Your task to perform on an android device: Search for the top rated book on goodreads. Image 0: 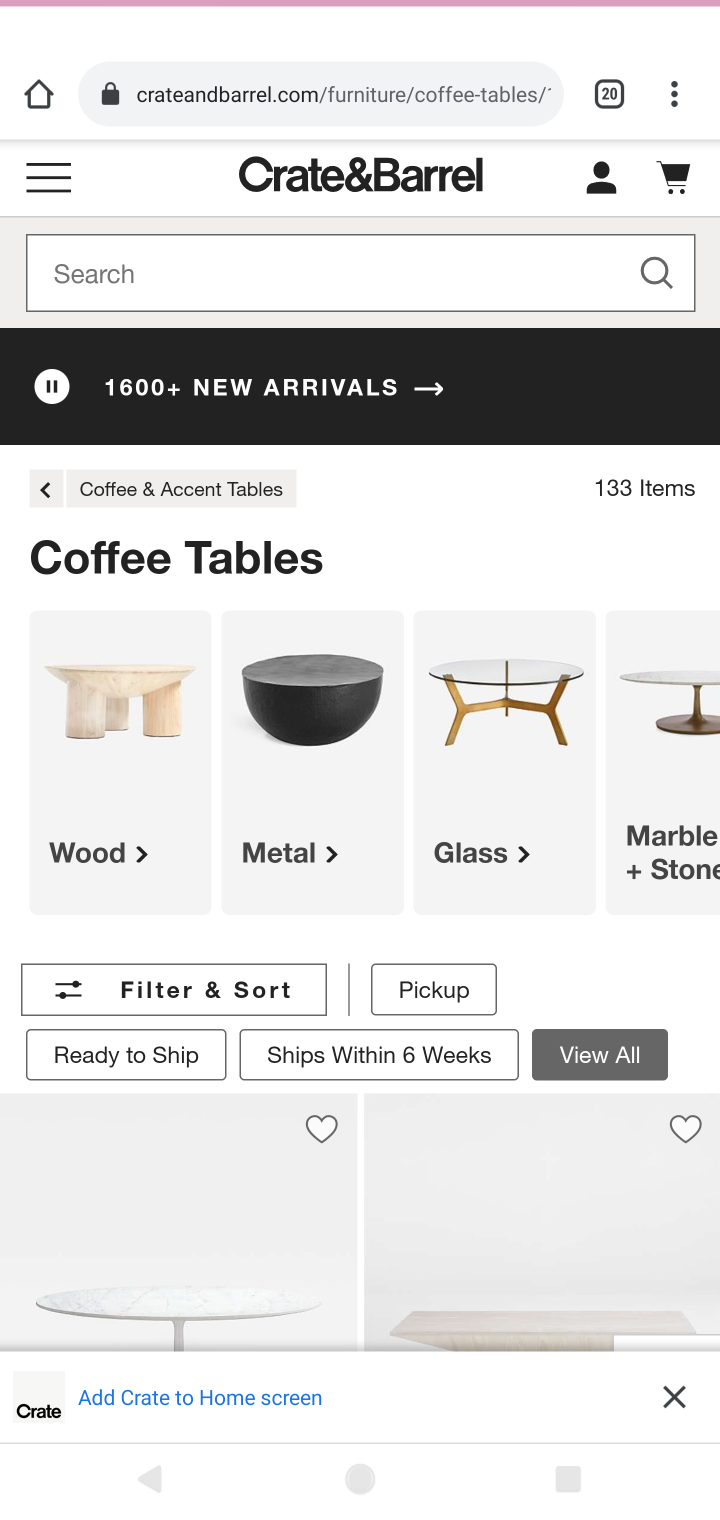
Step 0: press home button
Your task to perform on an android device: Search for the top rated book on goodreads. Image 1: 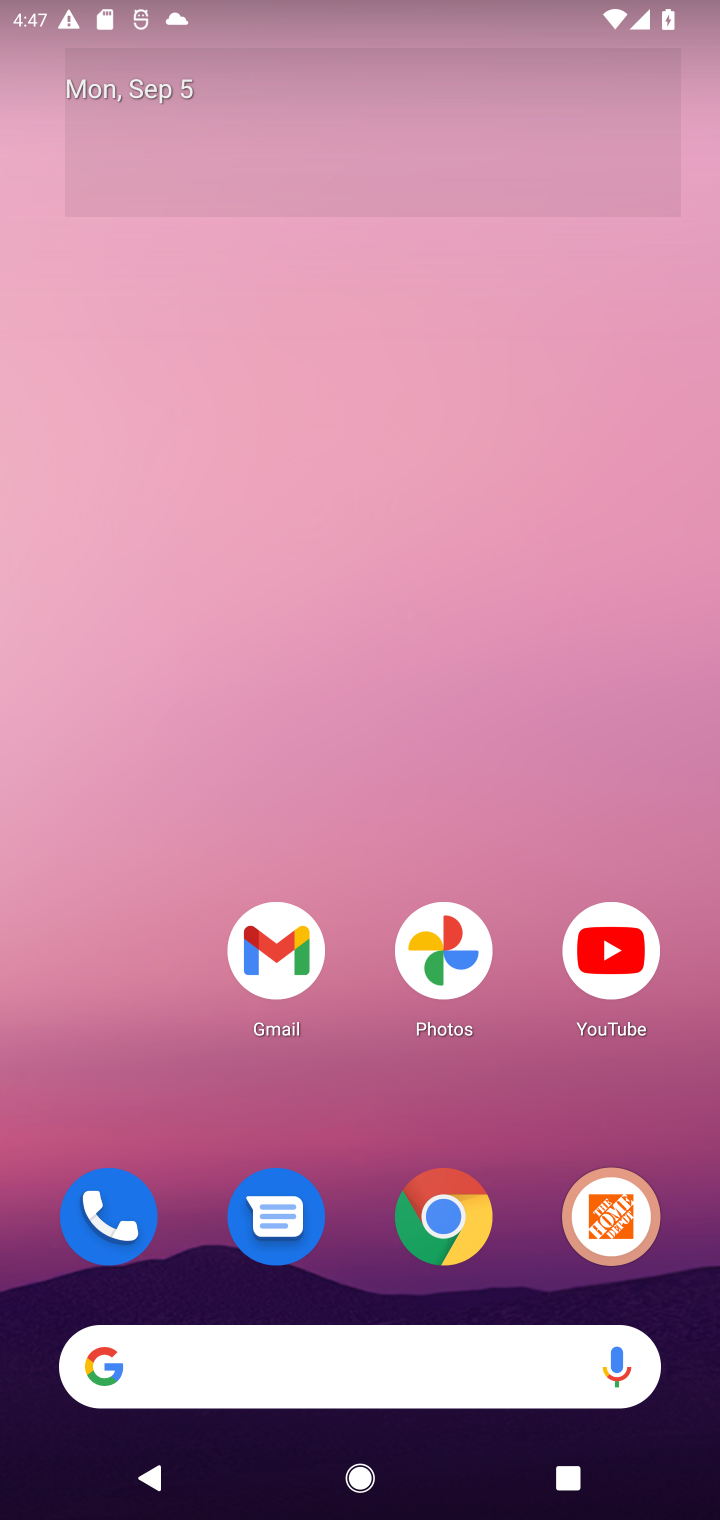
Step 1: click (109, 1362)
Your task to perform on an android device: Search for the top rated book on goodreads. Image 2: 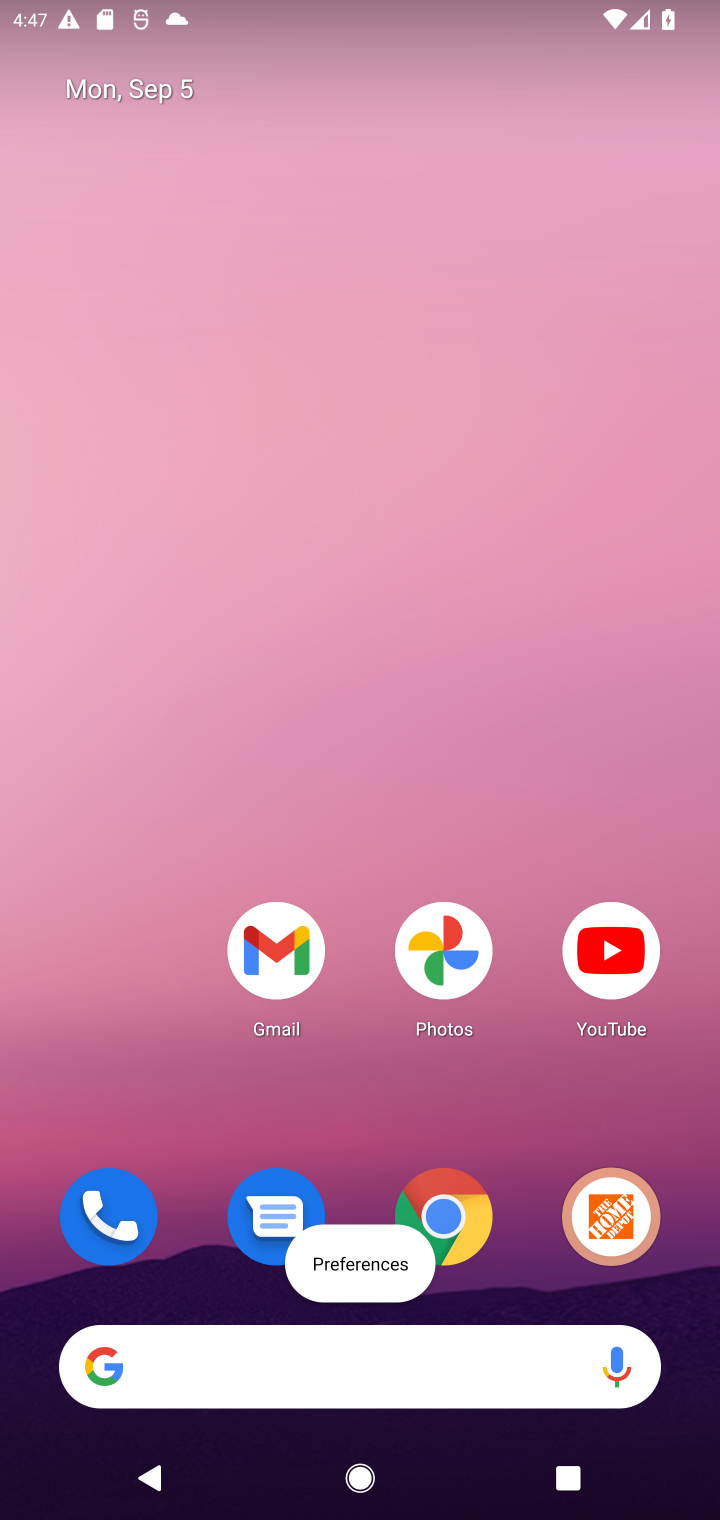
Step 2: click (103, 1364)
Your task to perform on an android device: Search for the top rated book on goodreads. Image 3: 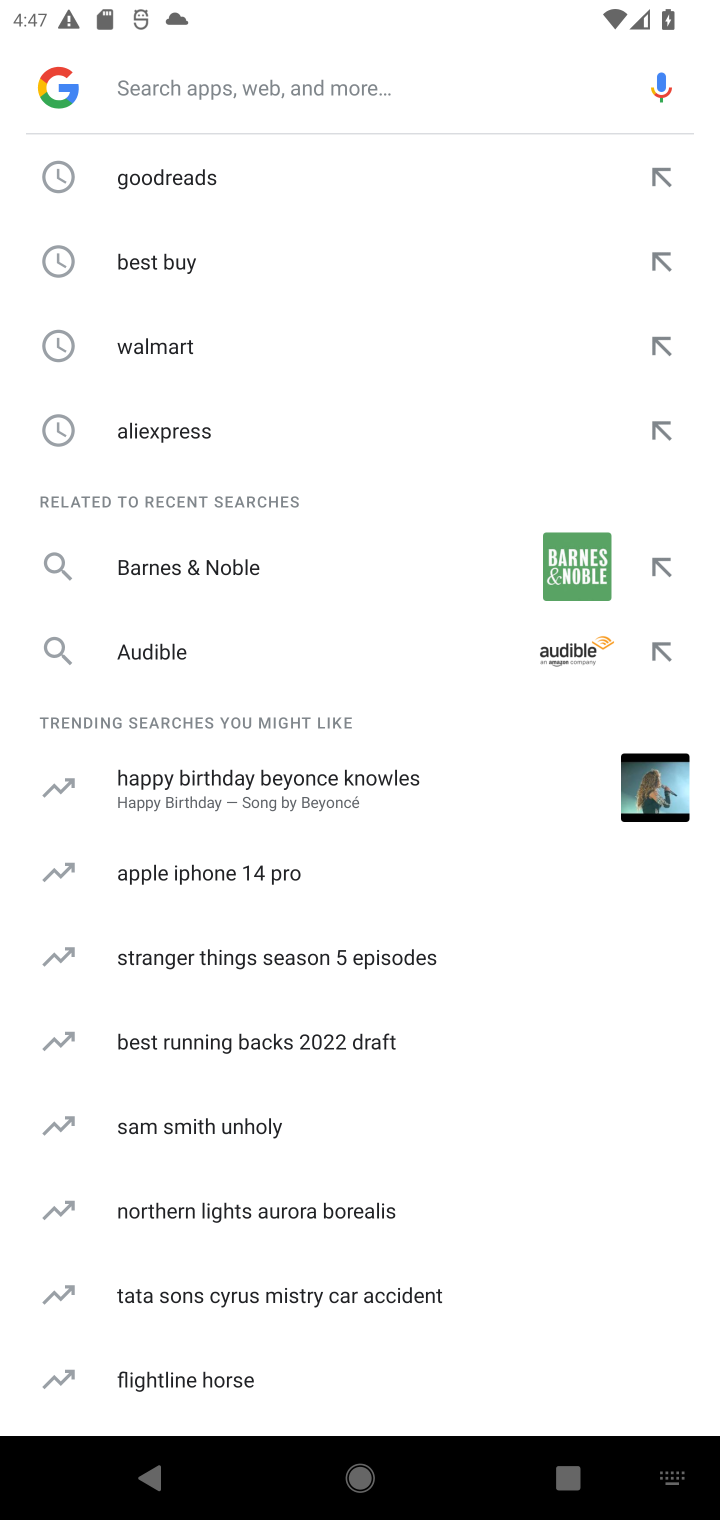
Step 3: click (213, 95)
Your task to perform on an android device: Search for the top rated book on goodreads. Image 4: 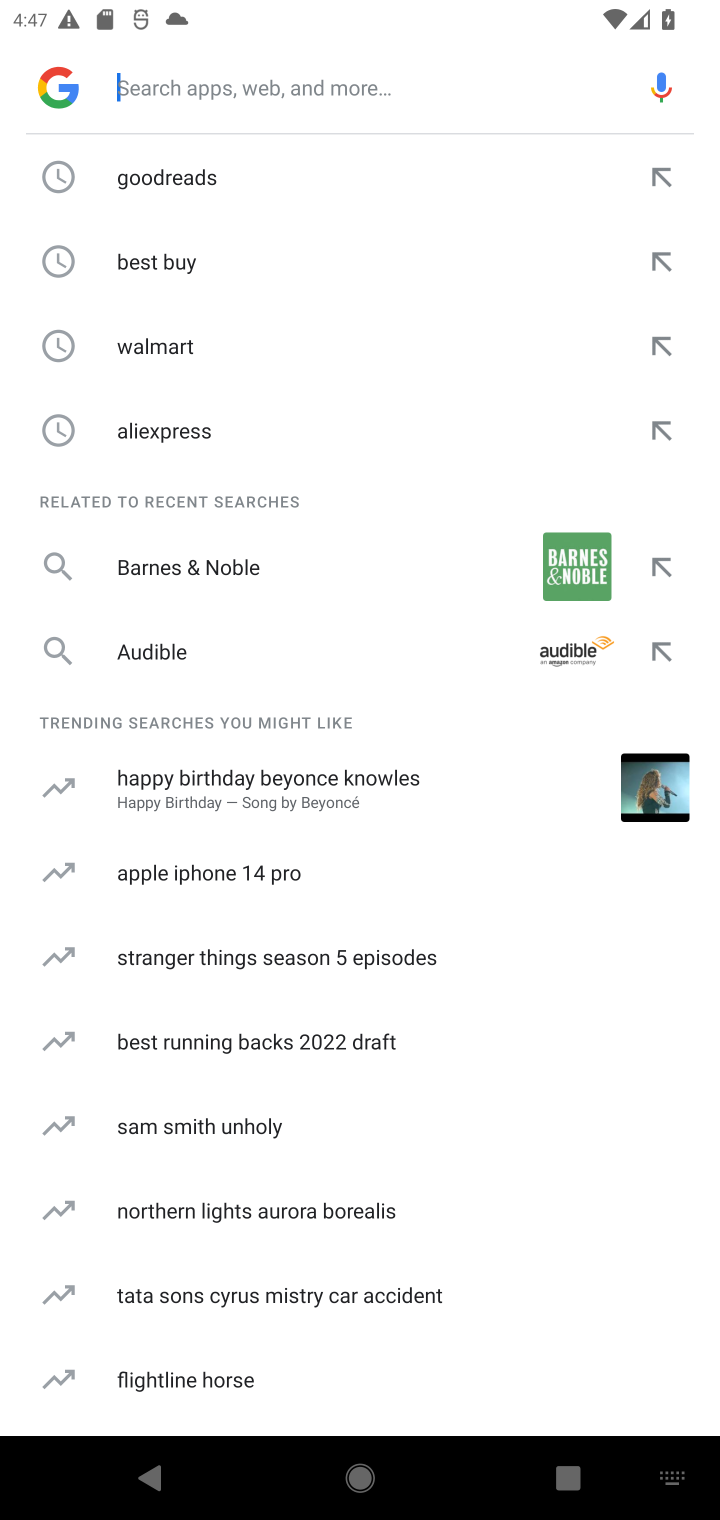
Step 4: type "goodreads"
Your task to perform on an android device: Search for the top rated book on goodreads. Image 5: 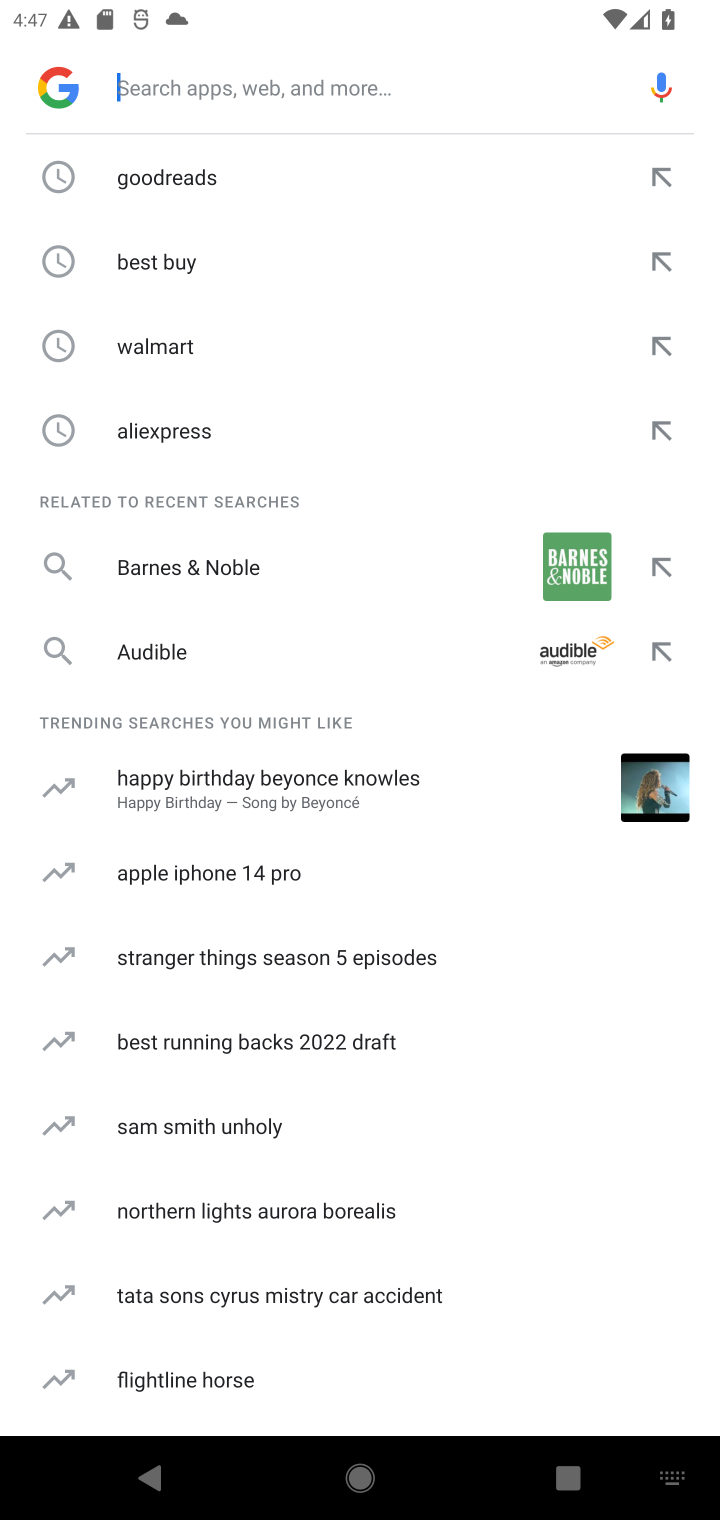
Step 5: click (168, 98)
Your task to perform on an android device: Search for the top rated book on goodreads. Image 6: 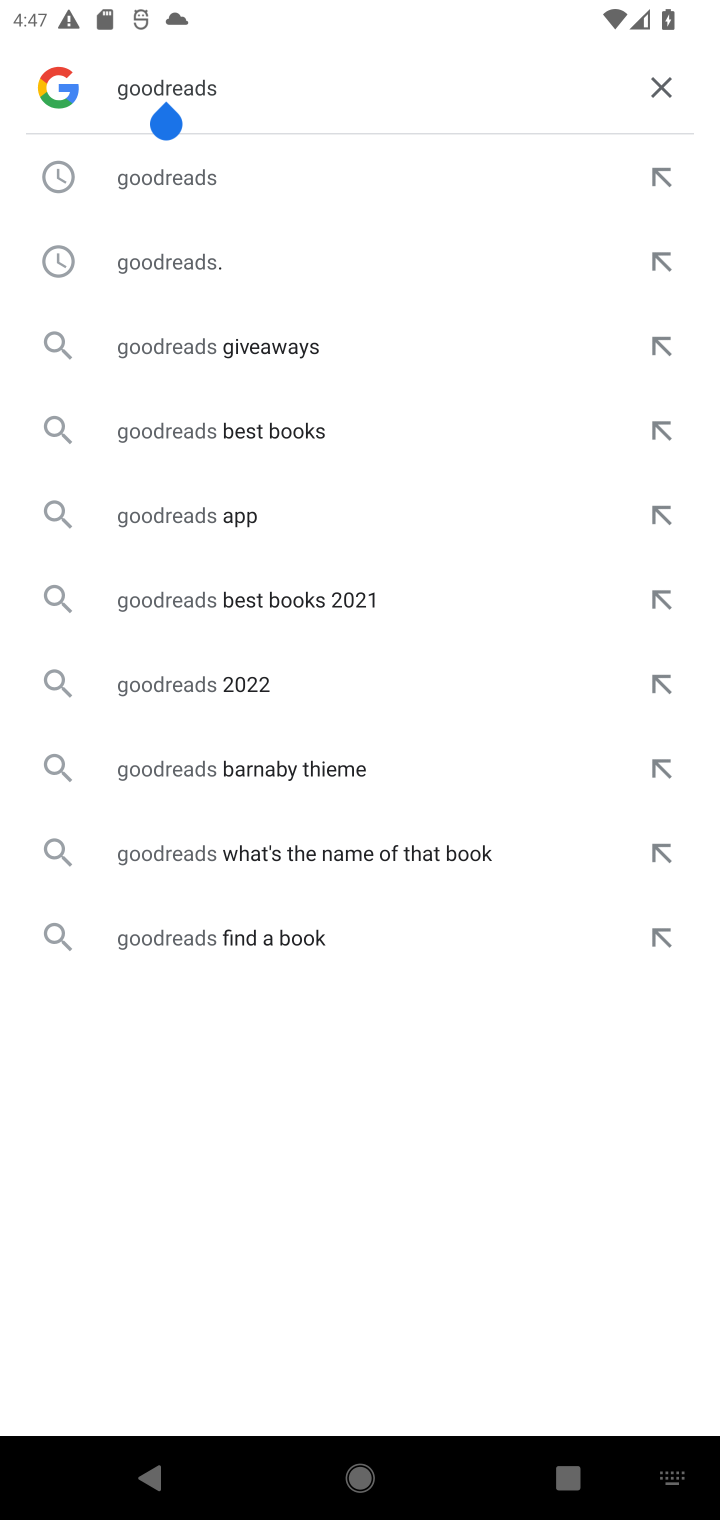
Step 6: press enter
Your task to perform on an android device: Search for the top rated book on goodreads. Image 7: 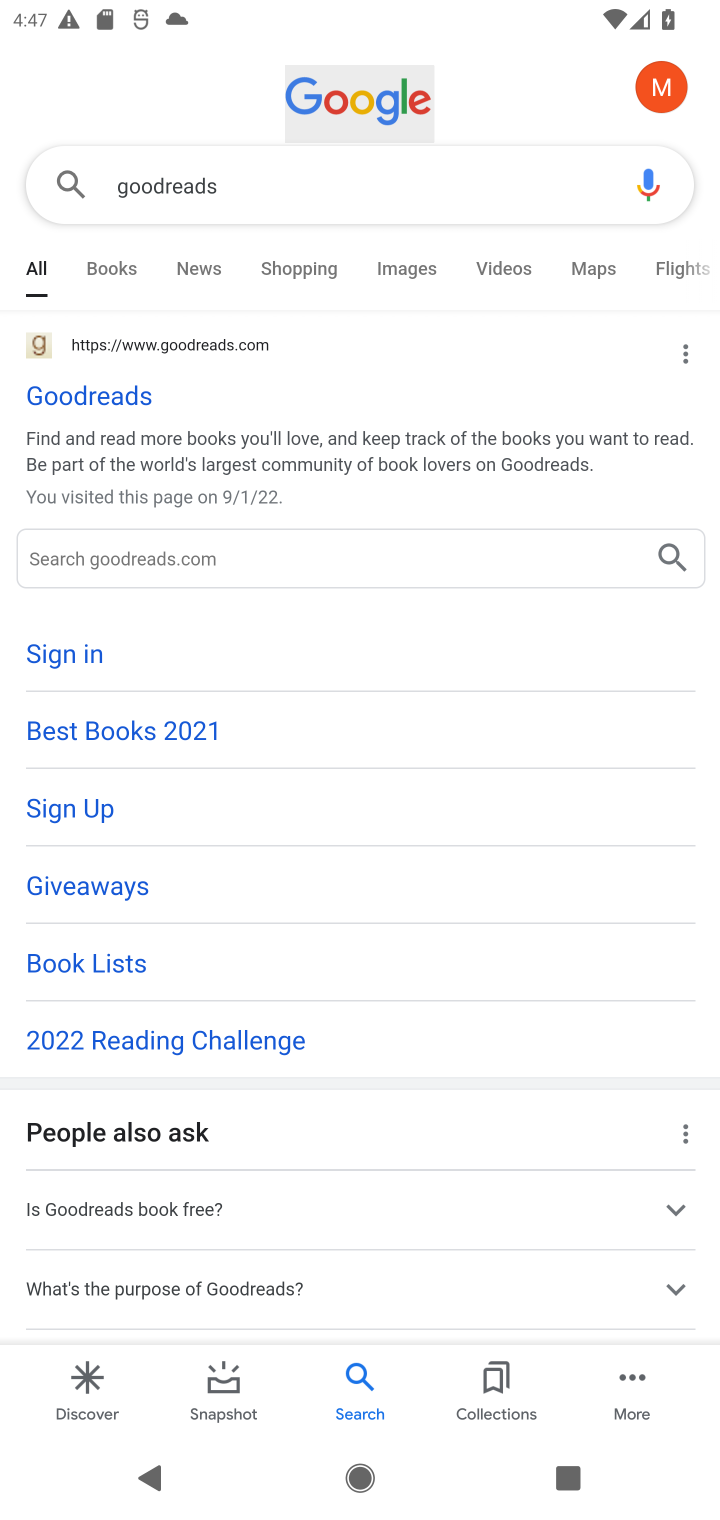
Step 7: click (92, 399)
Your task to perform on an android device: Search for the top rated book on goodreads. Image 8: 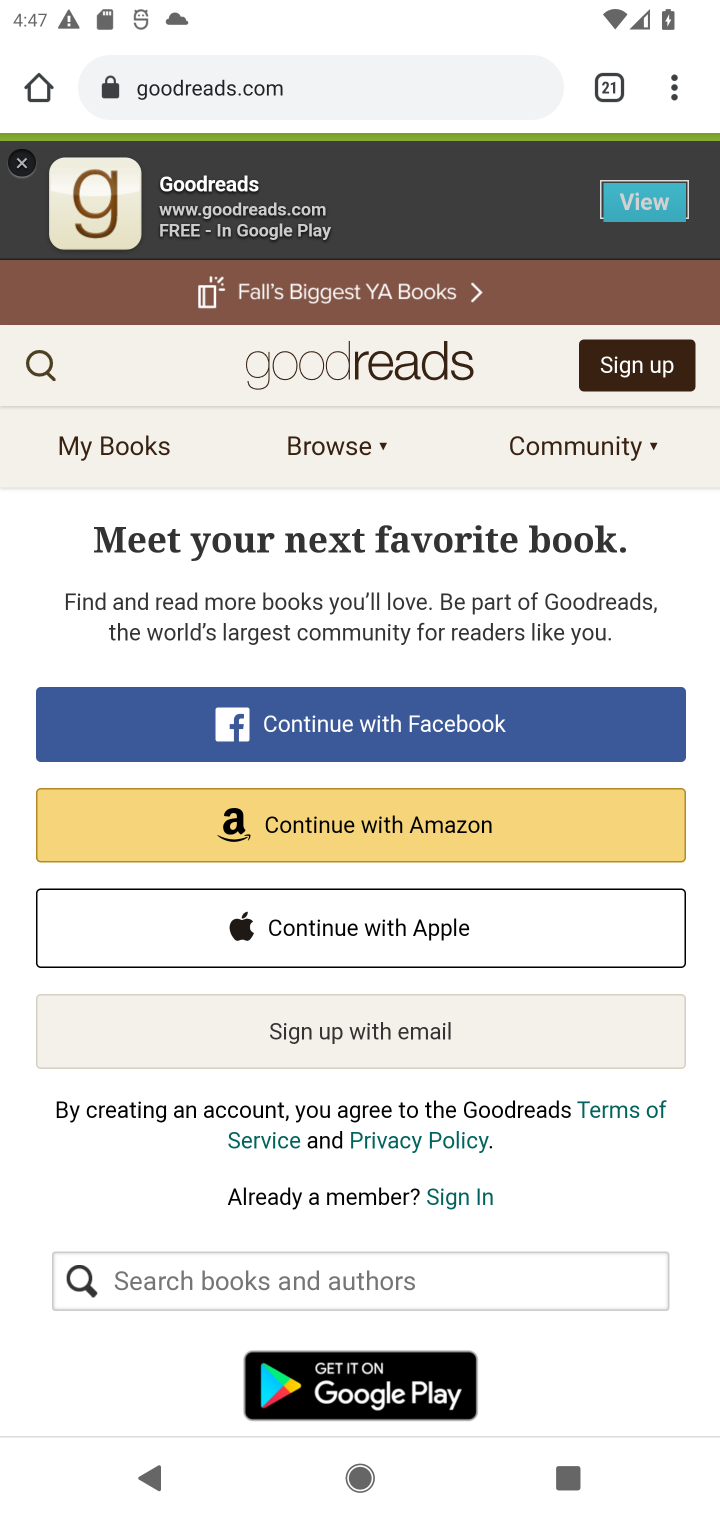
Step 8: click (41, 365)
Your task to perform on an android device: Search for the top rated book on goodreads. Image 9: 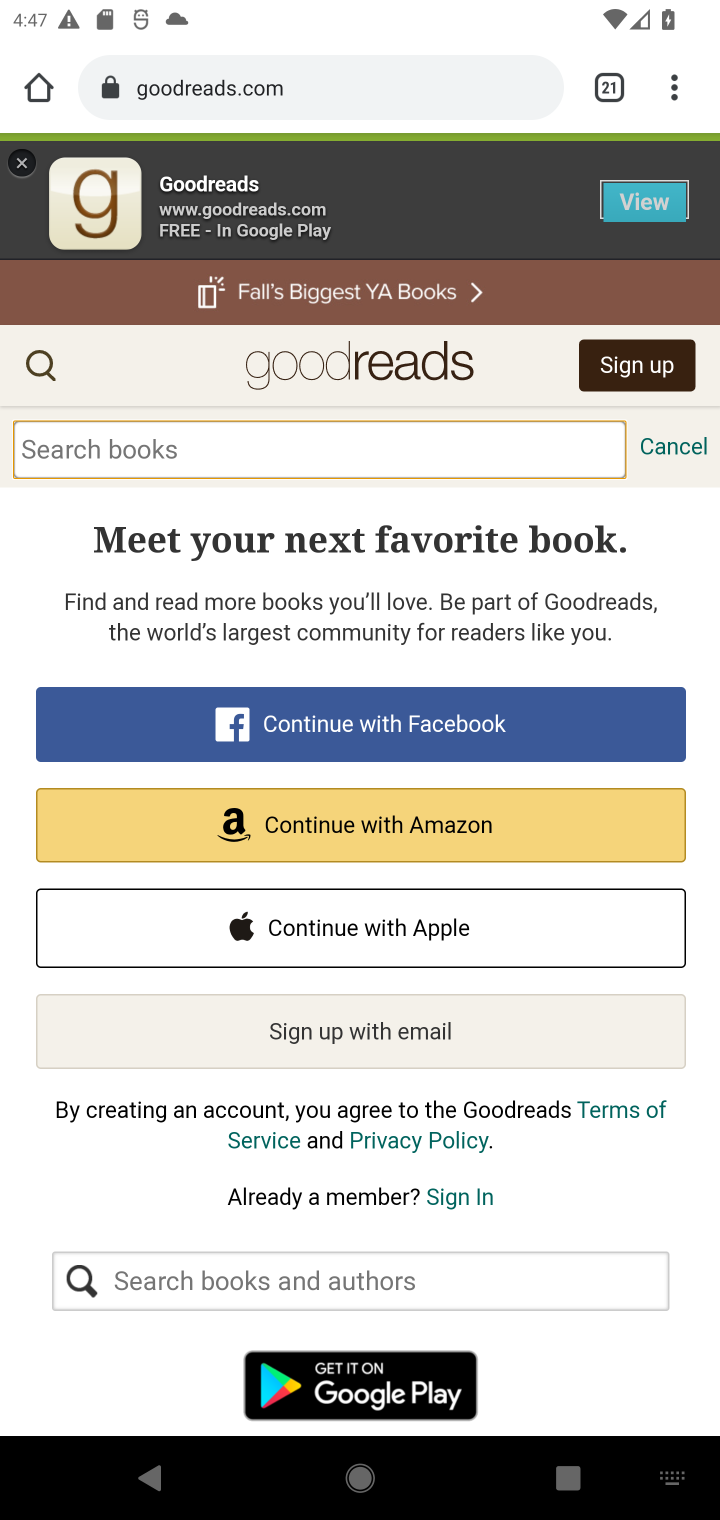
Step 9: click (149, 454)
Your task to perform on an android device: Search for the top rated book on goodreads. Image 10: 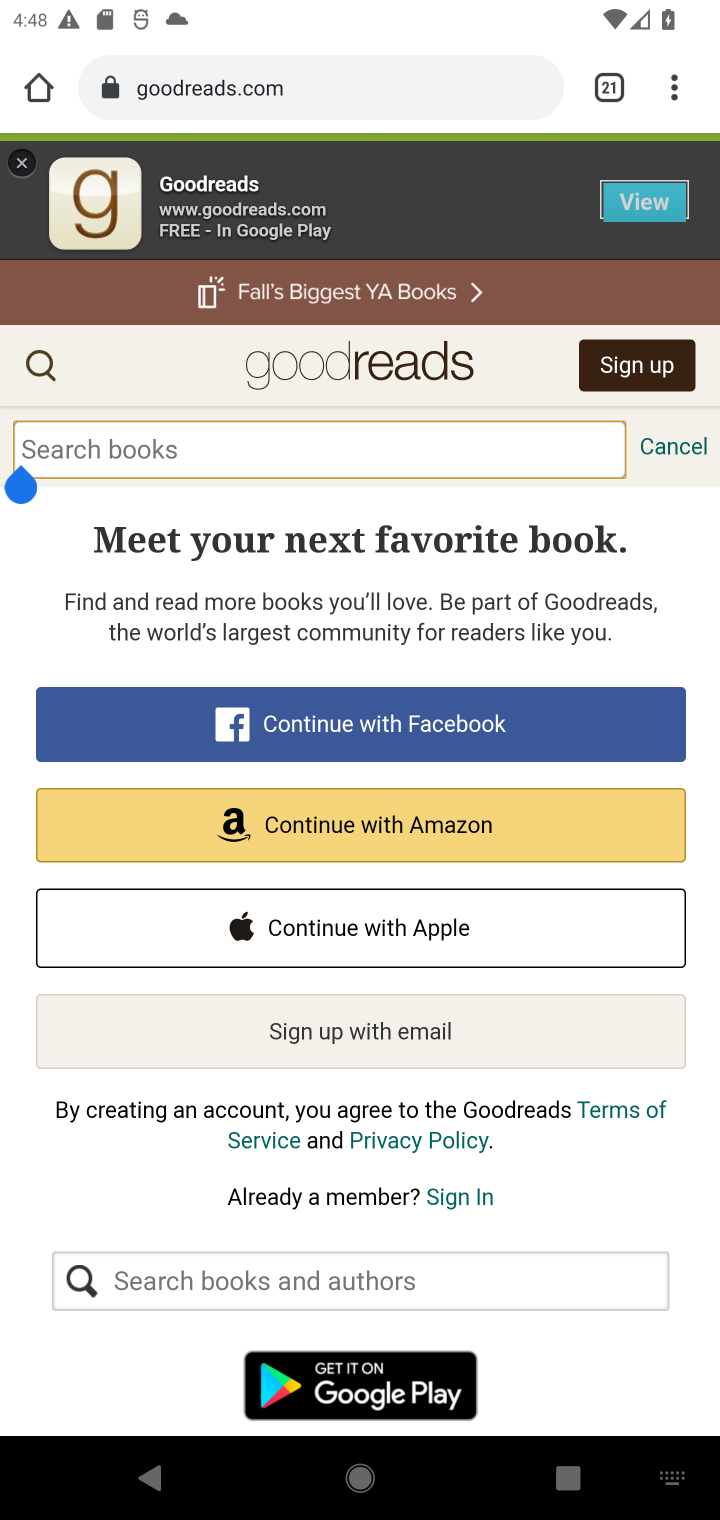
Step 10: type "book"
Your task to perform on an android device: Search for the top rated book on goodreads. Image 11: 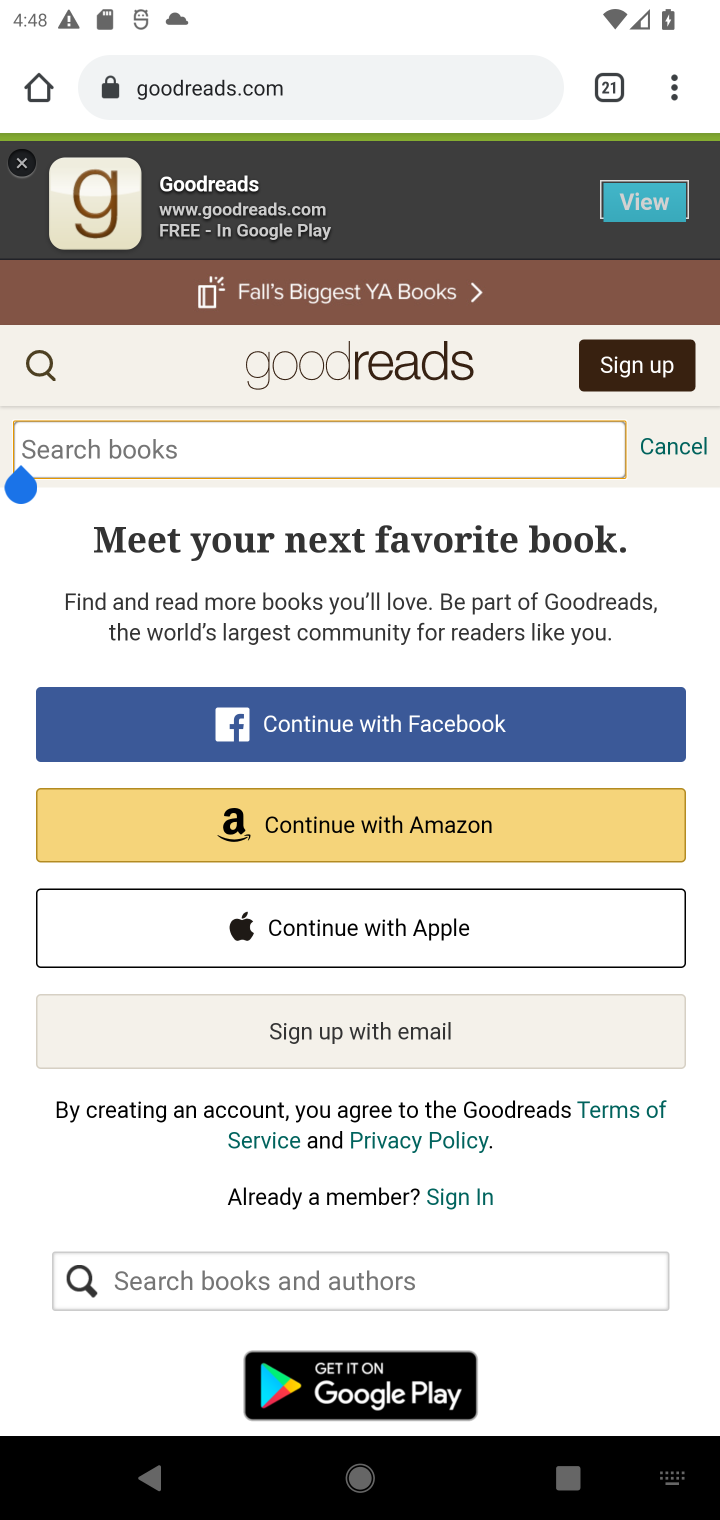
Step 11: click (97, 454)
Your task to perform on an android device: Search for the top rated book on goodreads. Image 12: 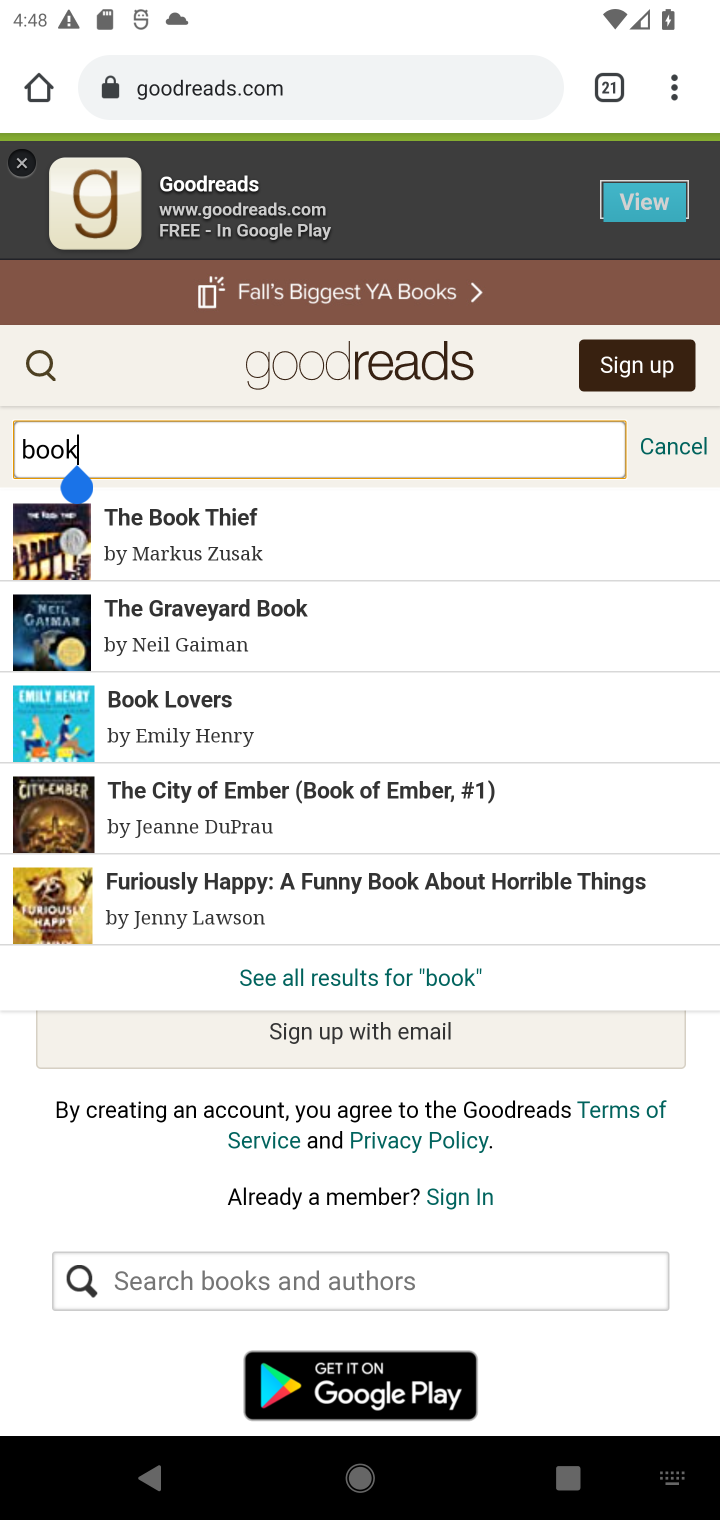
Step 12: press enter
Your task to perform on an android device: Search for the top rated book on goodreads. Image 13: 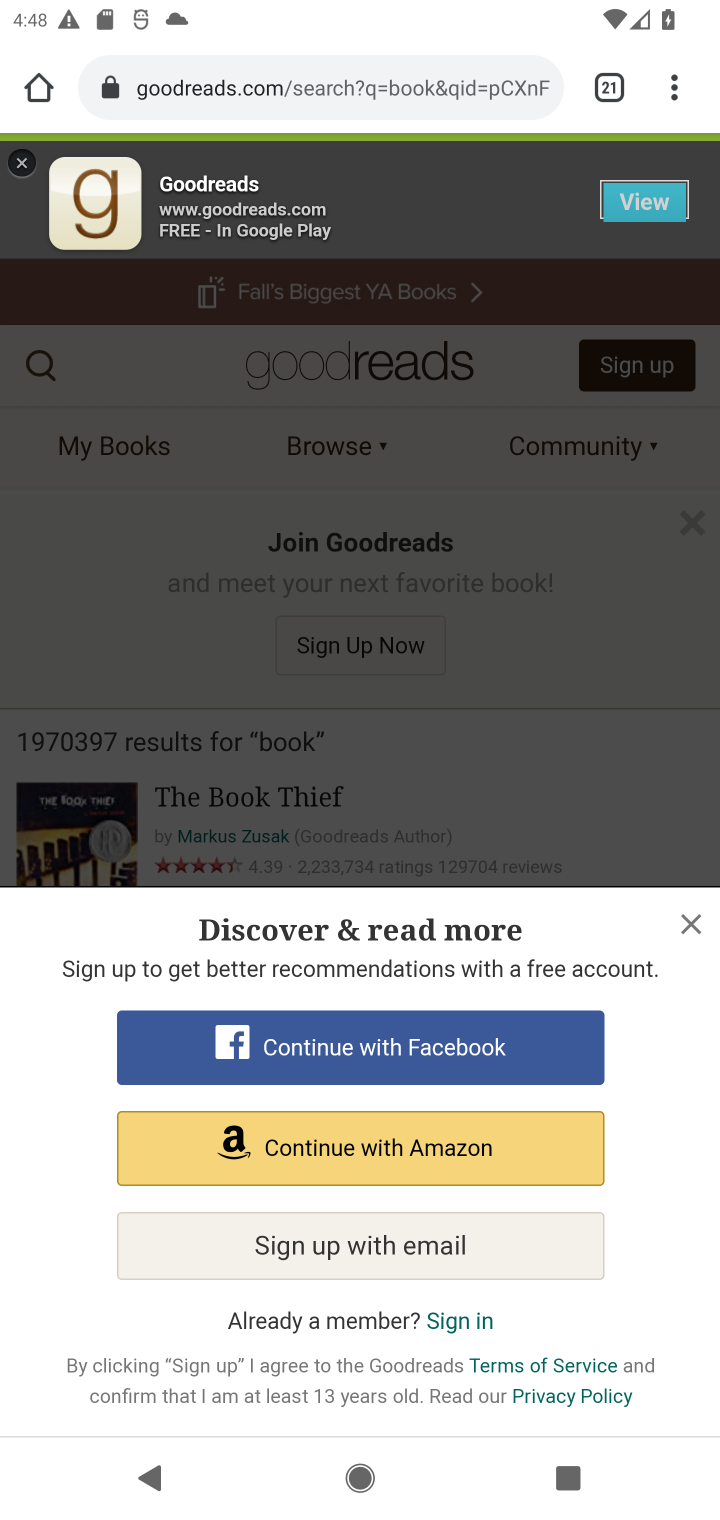
Step 13: click (700, 929)
Your task to perform on an android device: Search for the top rated book on goodreads. Image 14: 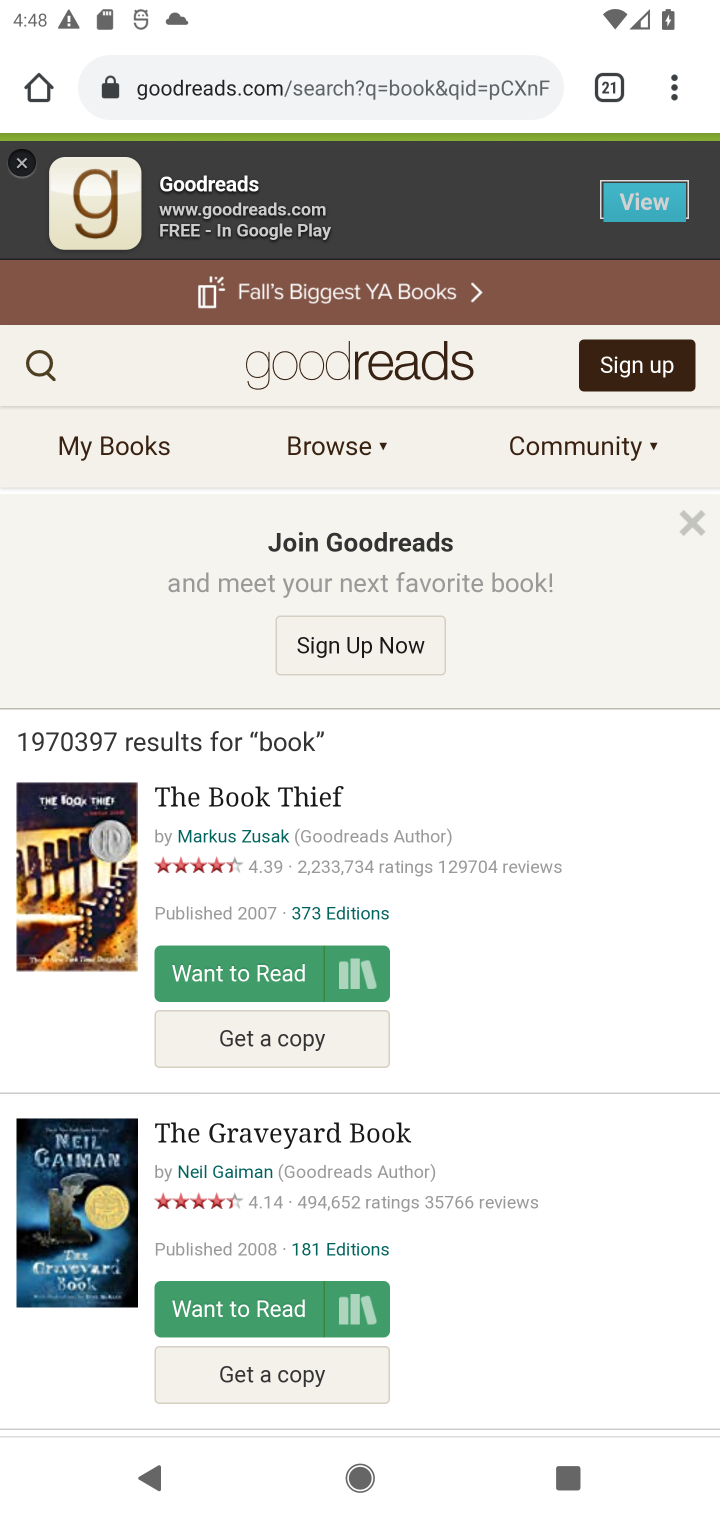
Step 14: click (689, 524)
Your task to perform on an android device: Search for the top rated book on goodreads. Image 15: 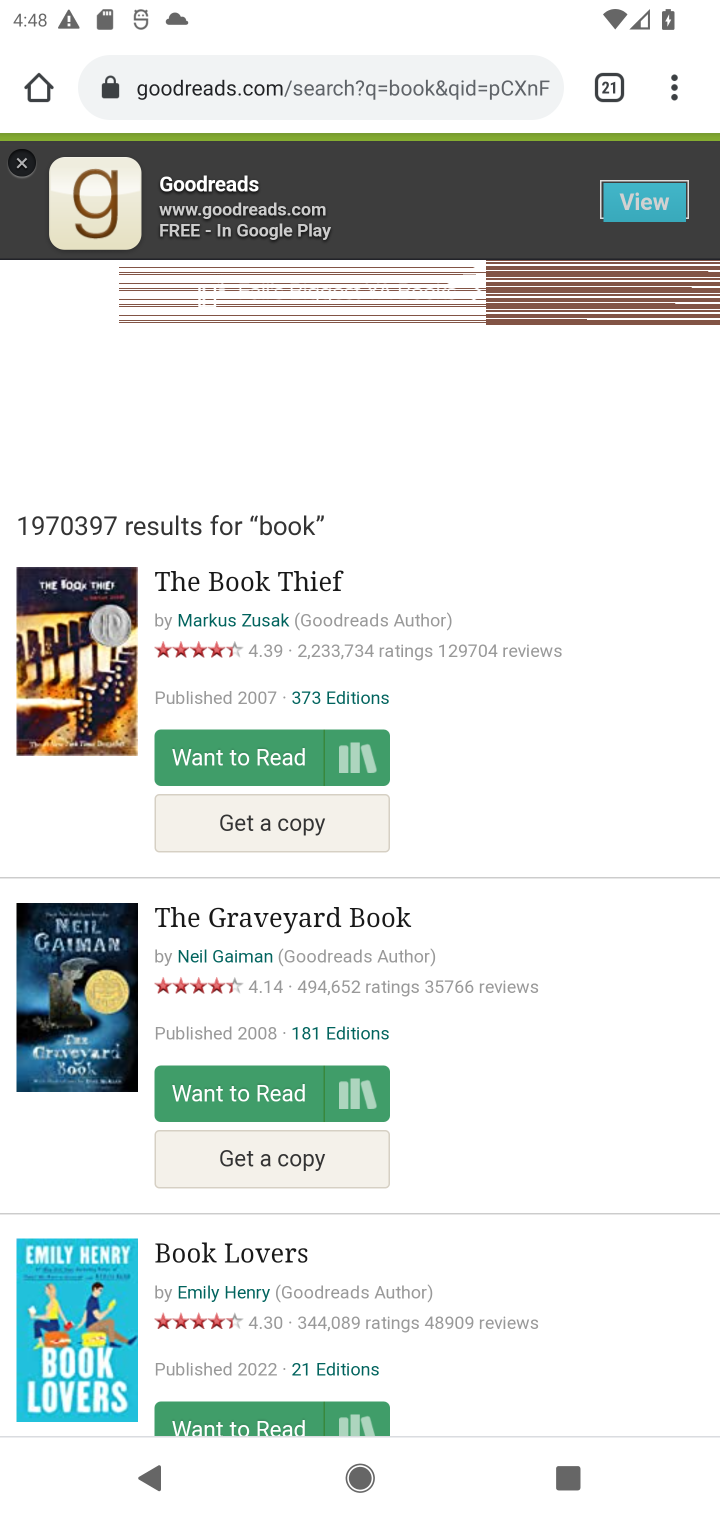
Step 15: drag from (460, 518) to (540, 950)
Your task to perform on an android device: Search for the top rated book on goodreads. Image 16: 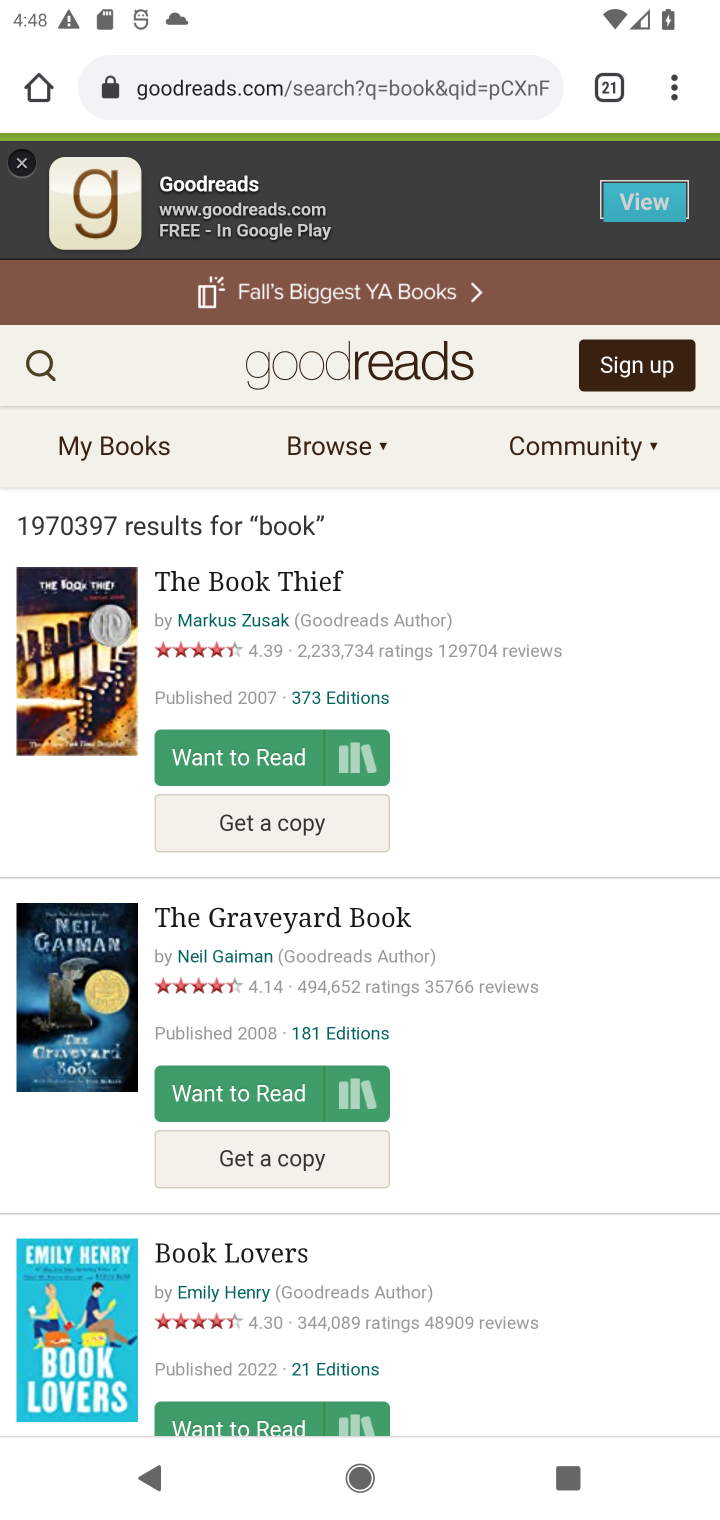
Step 16: click (381, 447)
Your task to perform on an android device: Search for the top rated book on goodreads. Image 17: 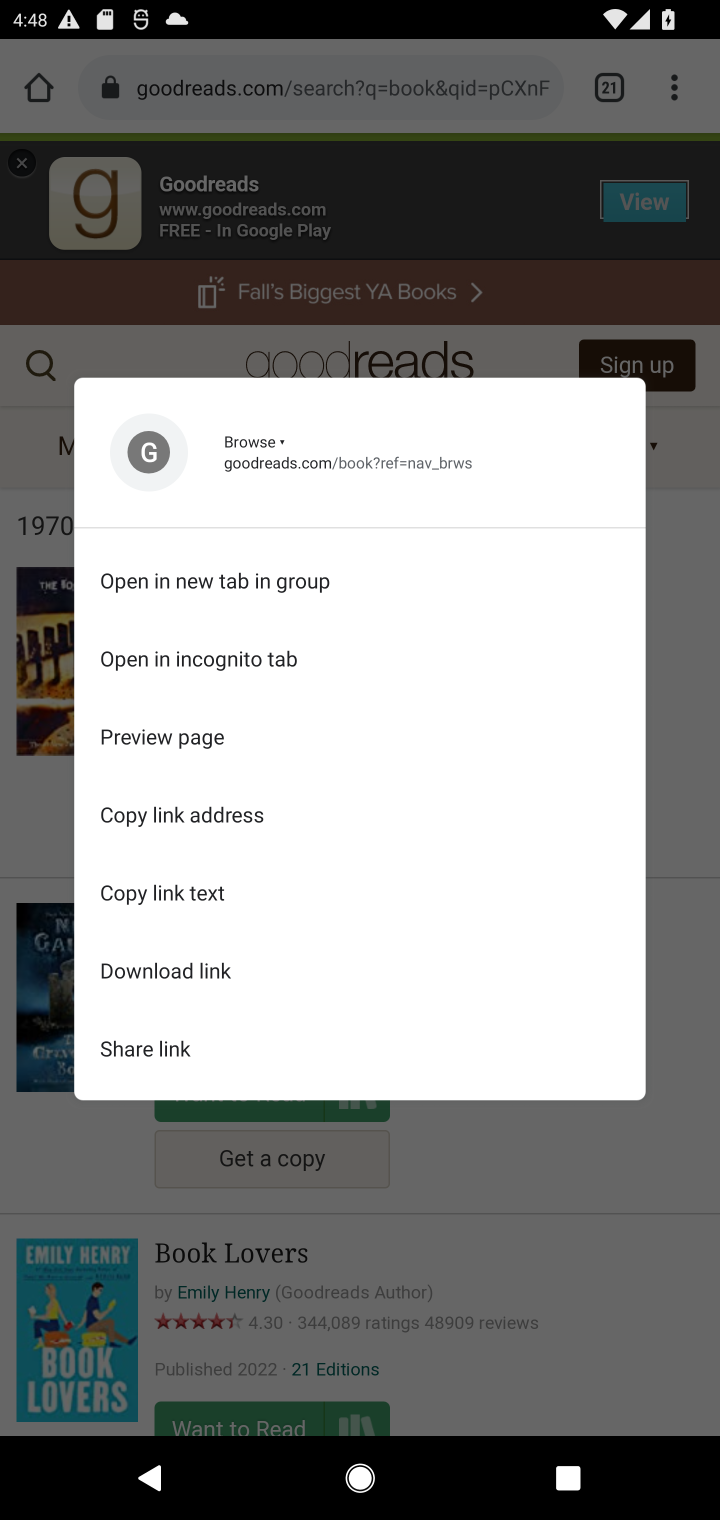
Step 17: click (381, 440)
Your task to perform on an android device: Search for the top rated book on goodreads. Image 18: 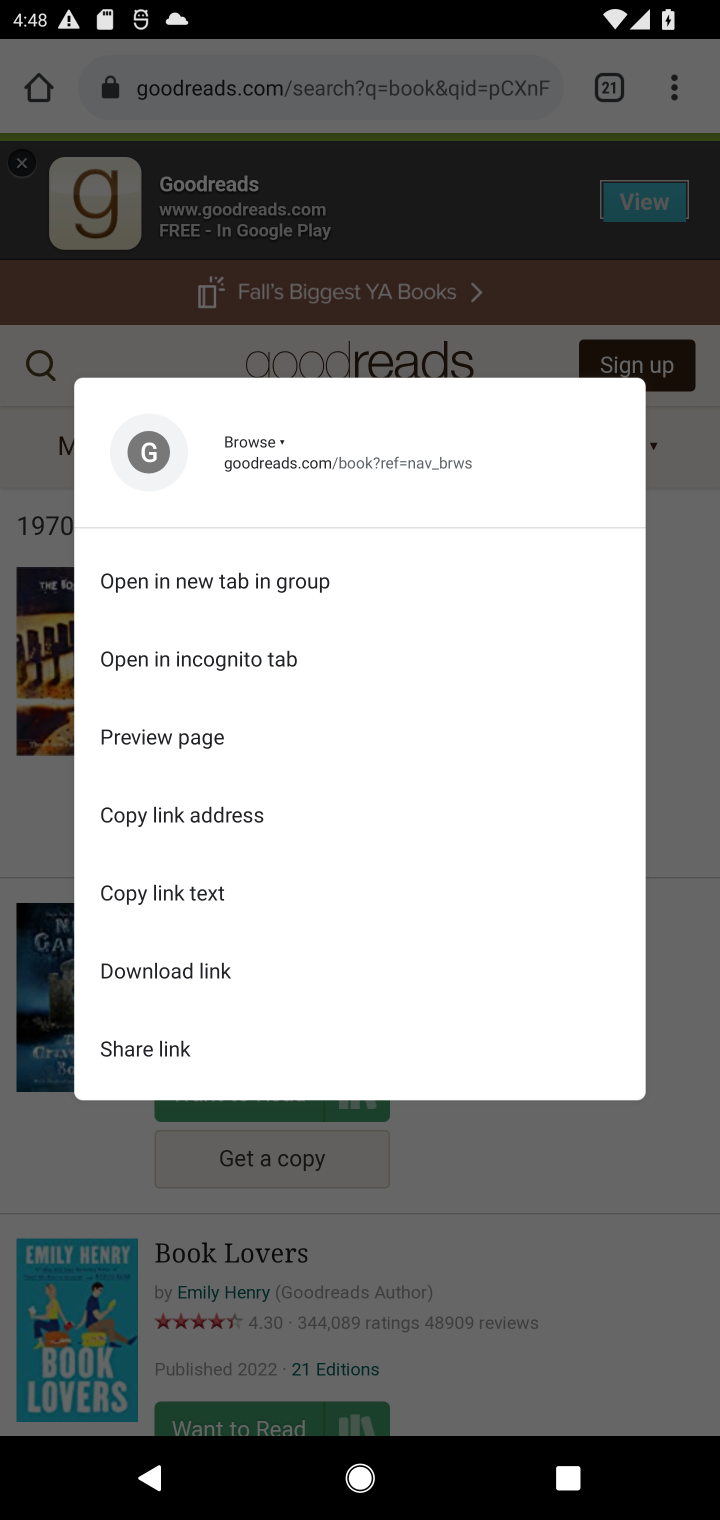
Step 18: click (231, 324)
Your task to perform on an android device: Search for the top rated book on goodreads. Image 19: 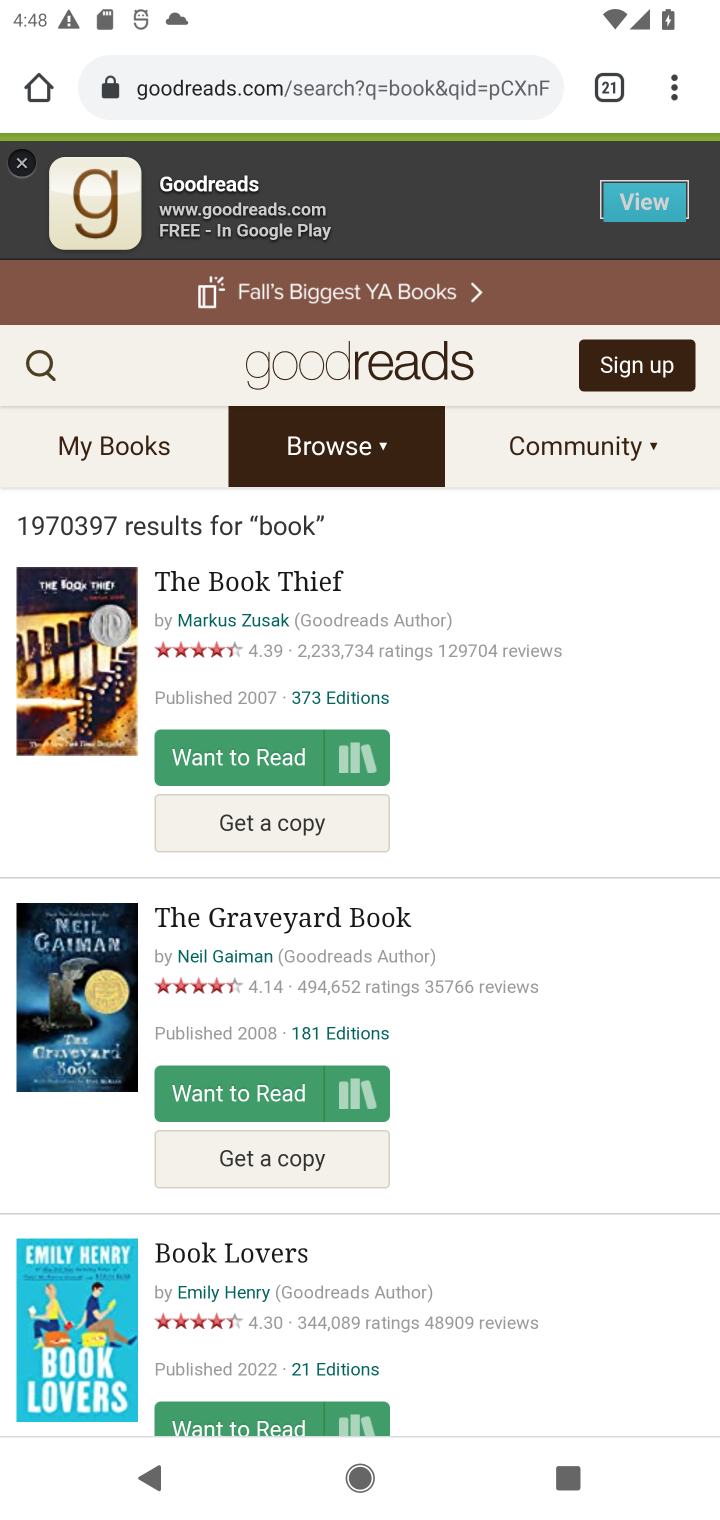
Step 19: task complete